Your task to perform on an android device: Go to network settings Image 0: 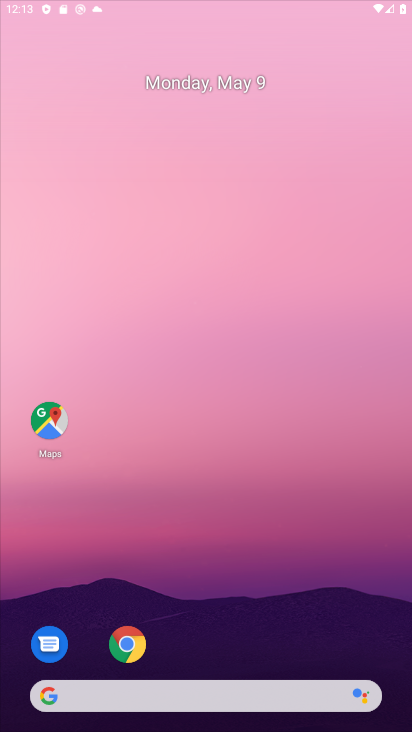
Step 0: click (70, 83)
Your task to perform on an android device: Go to network settings Image 1: 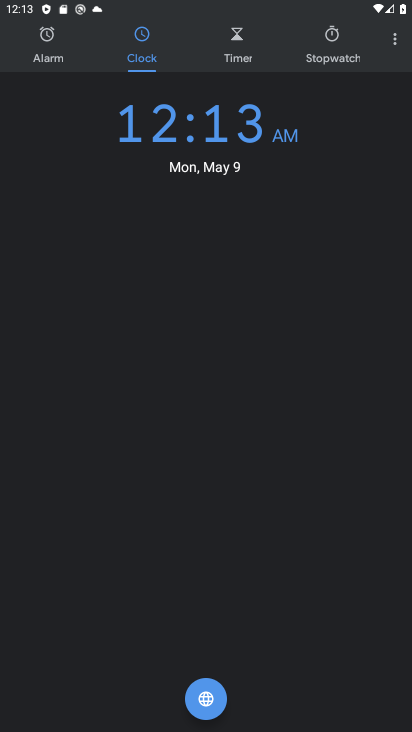
Step 1: press home button
Your task to perform on an android device: Go to network settings Image 2: 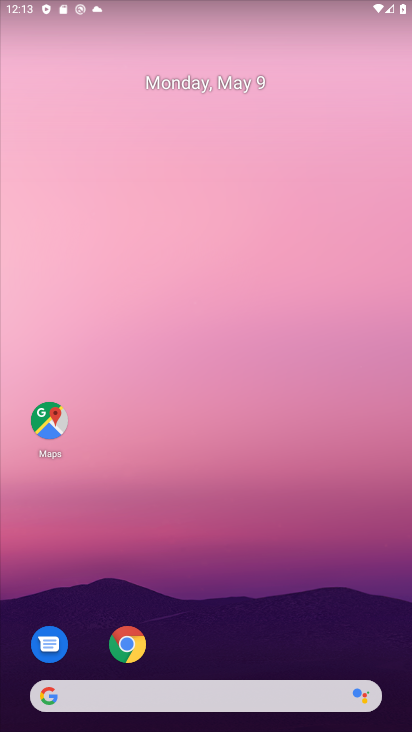
Step 2: drag from (390, 622) to (149, 1)
Your task to perform on an android device: Go to network settings Image 3: 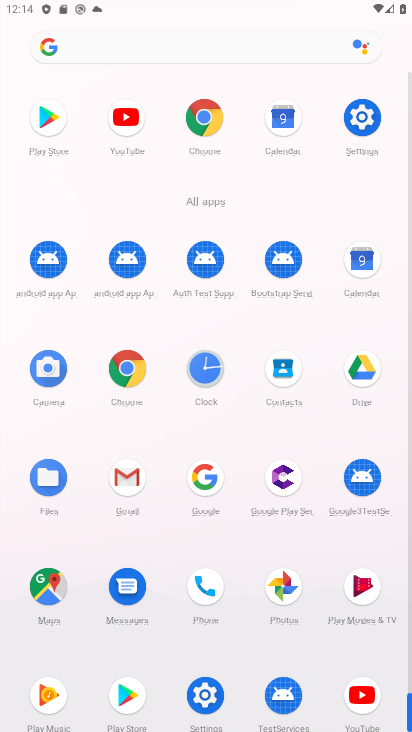
Step 3: click (356, 117)
Your task to perform on an android device: Go to network settings Image 4: 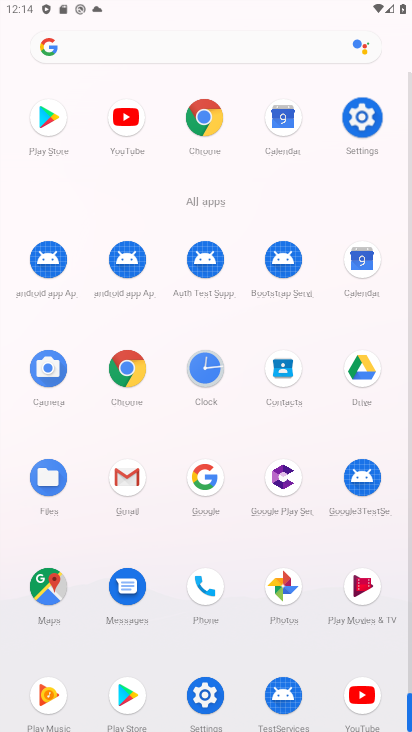
Step 4: click (357, 117)
Your task to perform on an android device: Go to network settings Image 5: 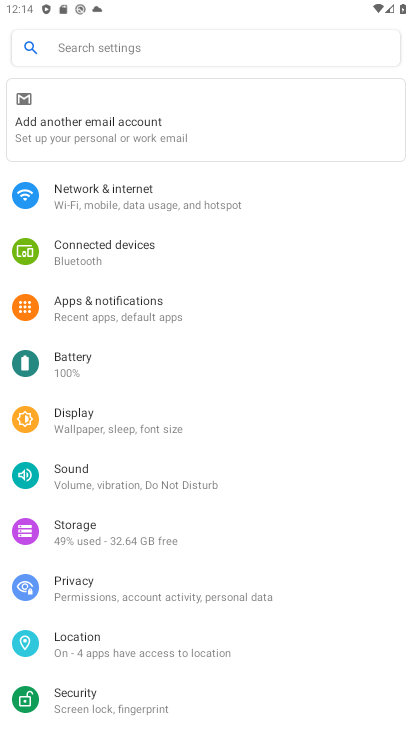
Step 5: click (129, 193)
Your task to perform on an android device: Go to network settings Image 6: 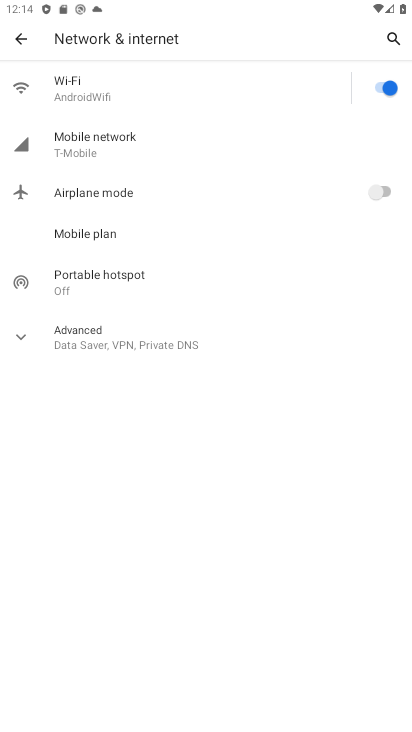
Step 6: task complete